Your task to perform on an android device: Search for flights from NYC to Tokyo Image 0: 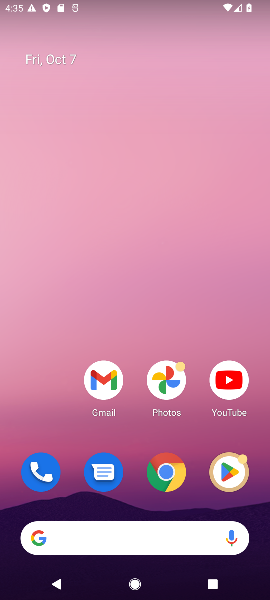
Step 0: click (161, 471)
Your task to perform on an android device: Search for flights from NYC to Tokyo Image 1: 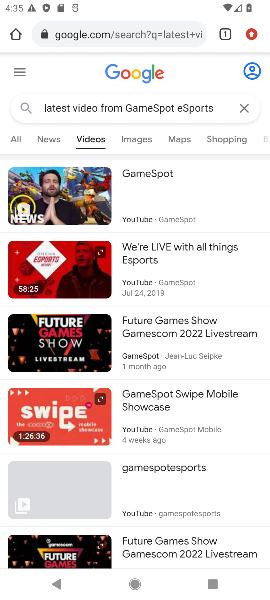
Step 1: click (172, 37)
Your task to perform on an android device: Search for flights from NYC to Tokyo Image 2: 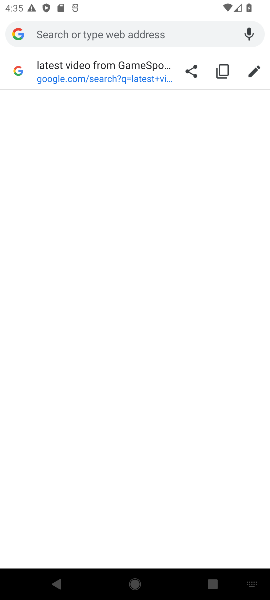
Step 2: type "flights from NYC to Tokyo"
Your task to perform on an android device: Search for flights from NYC to Tokyo Image 3: 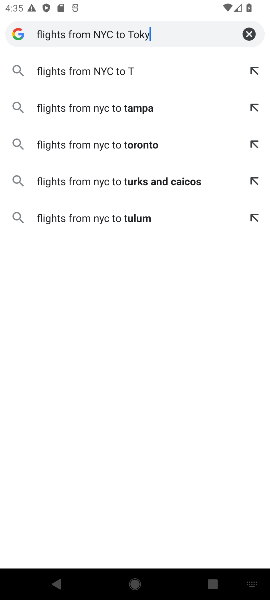
Step 3: press enter
Your task to perform on an android device: Search for flights from NYC to Tokyo Image 4: 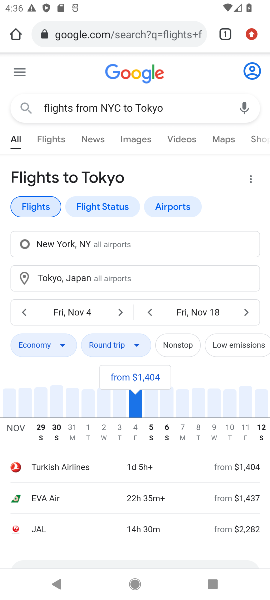
Step 4: drag from (135, 460) to (131, 297)
Your task to perform on an android device: Search for flights from NYC to Tokyo Image 5: 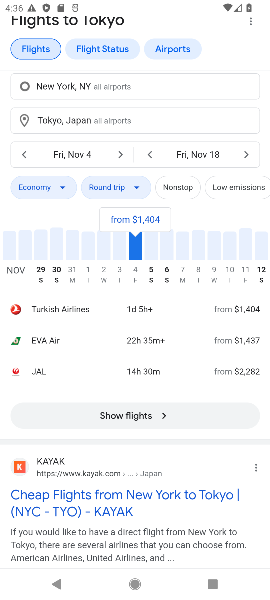
Step 5: click (144, 414)
Your task to perform on an android device: Search for flights from NYC to Tokyo Image 6: 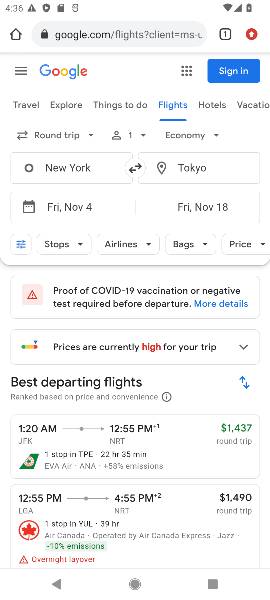
Step 6: task complete